Your task to perform on an android device: turn vacation reply on in the gmail app Image 0: 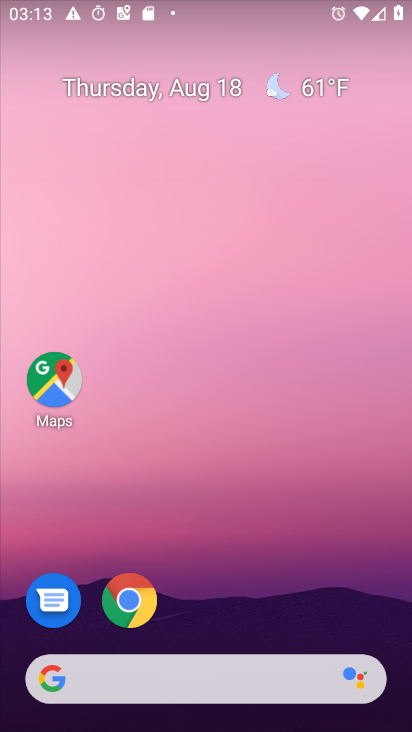
Step 0: drag from (252, 630) to (258, 209)
Your task to perform on an android device: turn vacation reply on in the gmail app Image 1: 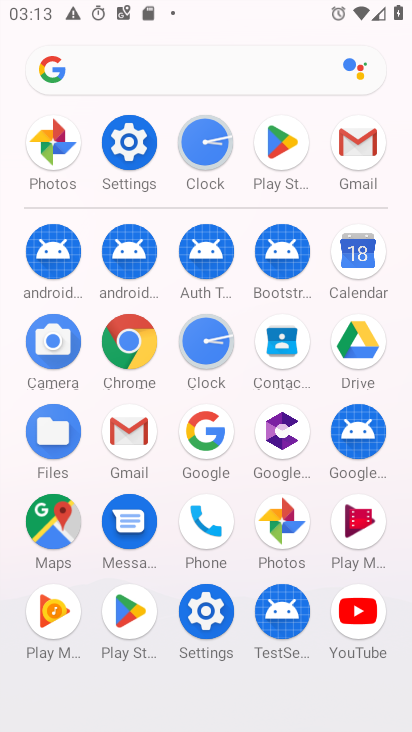
Step 1: click (121, 427)
Your task to perform on an android device: turn vacation reply on in the gmail app Image 2: 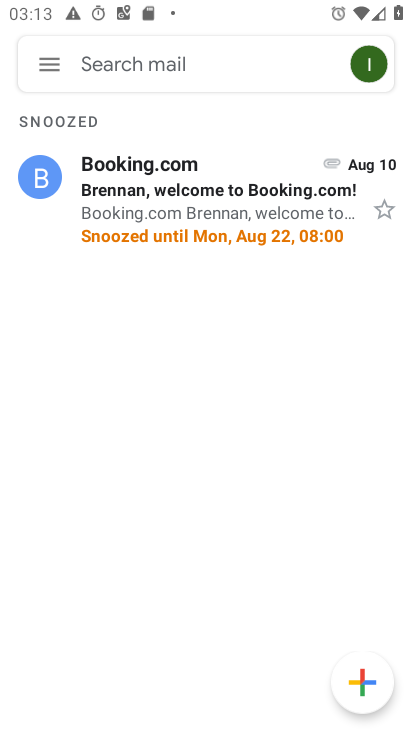
Step 2: click (41, 60)
Your task to perform on an android device: turn vacation reply on in the gmail app Image 3: 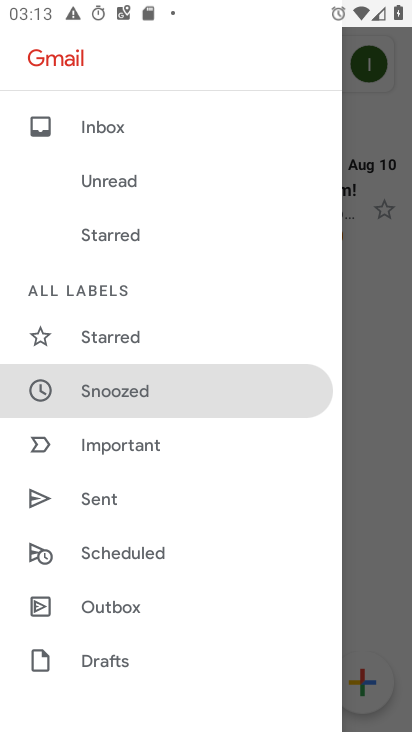
Step 3: drag from (205, 592) to (278, 118)
Your task to perform on an android device: turn vacation reply on in the gmail app Image 4: 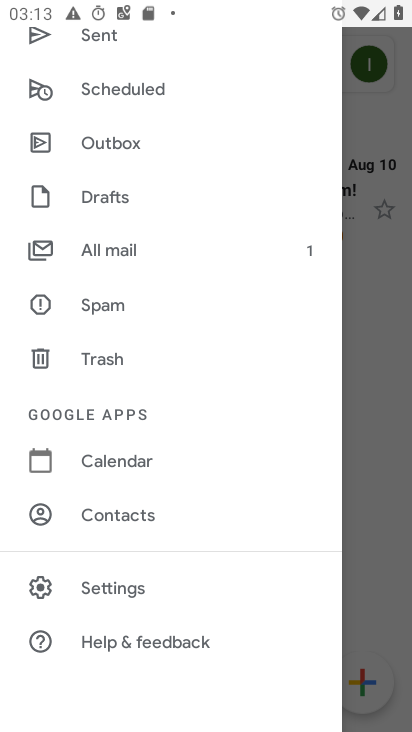
Step 4: click (108, 594)
Your task to perform on an android device: turn vacation reply on in the gmail app Image 5: 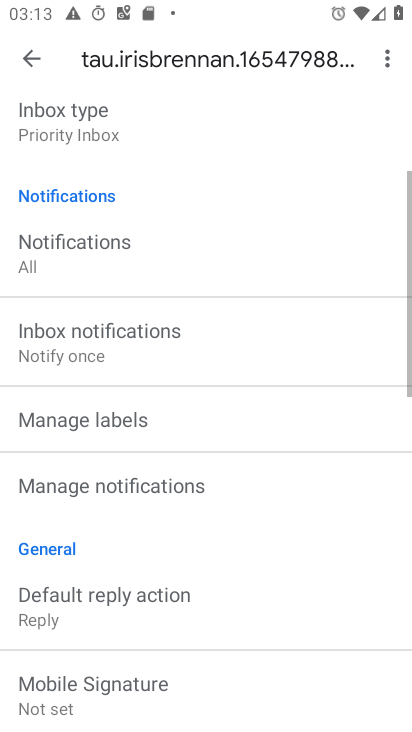
Step 5: drag from (247, 695) to (279, 208)
Your task to perform on an android device: turn vacation reply on in the gmail app Image 6: 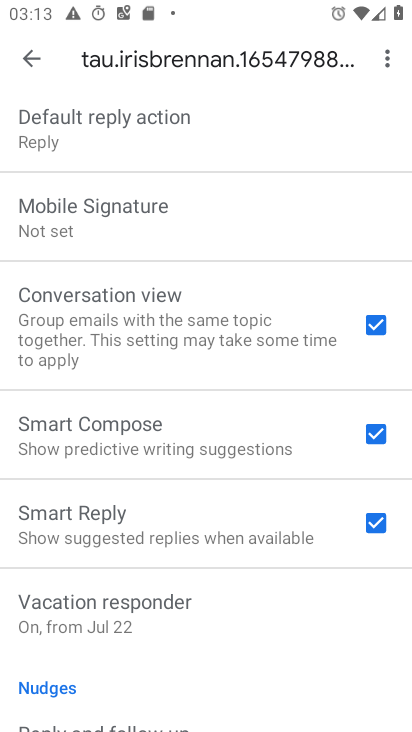
Step 6: click (83, 609)
Your task to perform on an android device: turn vacation reply on in the gmail app Image 7: 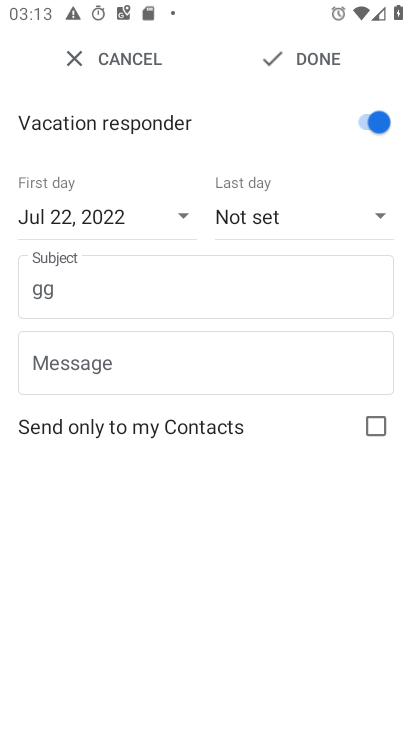
Step 7: task complete